Your task to perform on an android device: open app "Indeed Job Search" (install if not already installed) and enter user name: "quixotic@inbox.com" and password: "microphones" Image 0: 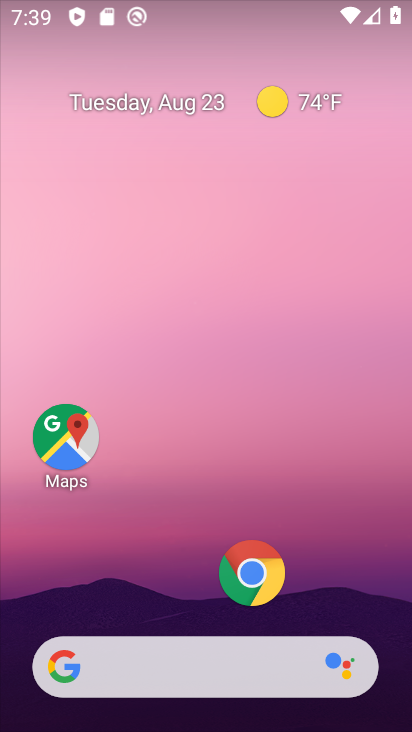
Step 0: drag from (192, 482) to (194, 28)
Your task to perform on an android device: open app "Indeed Job Search" (install if not already installed) and enter user name: "quixotic@inbox.com" and password: "microphones" Image 1: 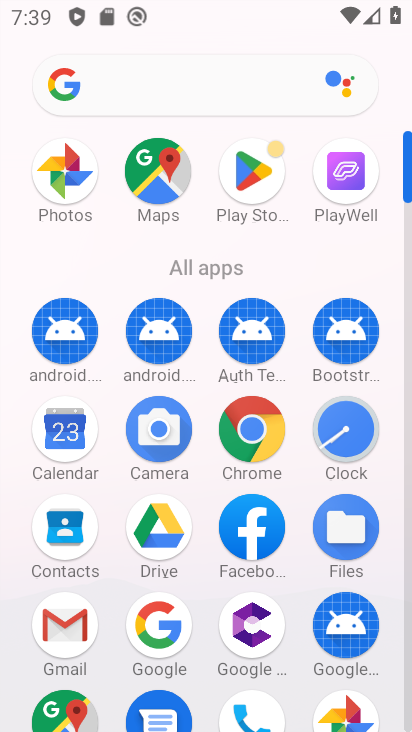
Step 1: click (257, 183)
Your task to perform on an android device: open app "Indeed Job Search" (install if not already installed) and enter user name: "quixotic@inbox.com" and password: "microphones" Image 2: 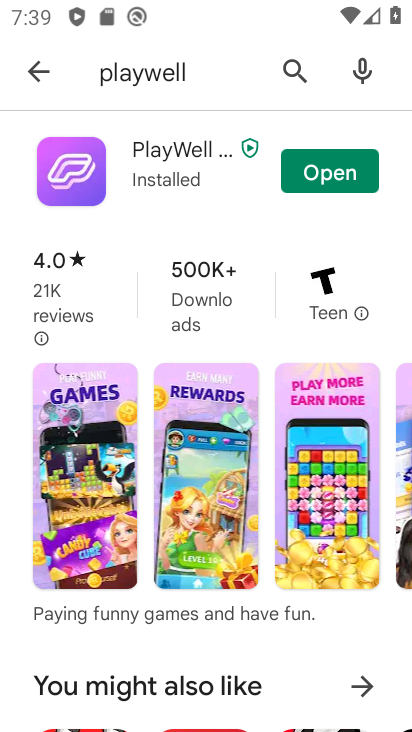
Step 2: click (41, 72)
Your task to perform on an android device: open app "Indeed Job Search" (install if not already installed) and enter user name: "quixotic@inbox.com" and password: "microphones" Image 3: 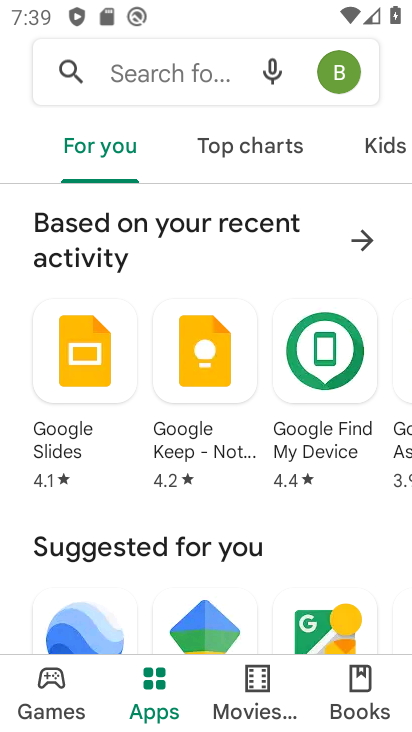
Step 3: click (139, 72)
Your task to perform on an android device: open app "Indeed Job Search" (install if not already installed) and enter user name: "quixotic@inbox.com" and password: "microphones" Image 4: 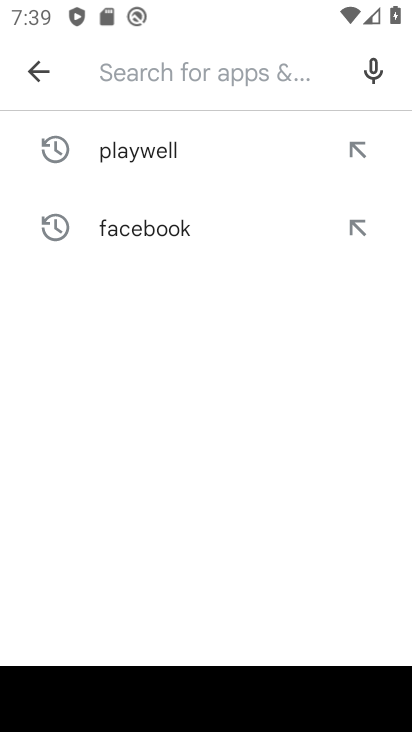
Step 4: type "Indeed Job Search"
Your task to perform on an android device: open app "Indeed Job Search" (install if not already installed) and enter user name: "quixotic@inbox.com" and password: "microphones" Image 5: 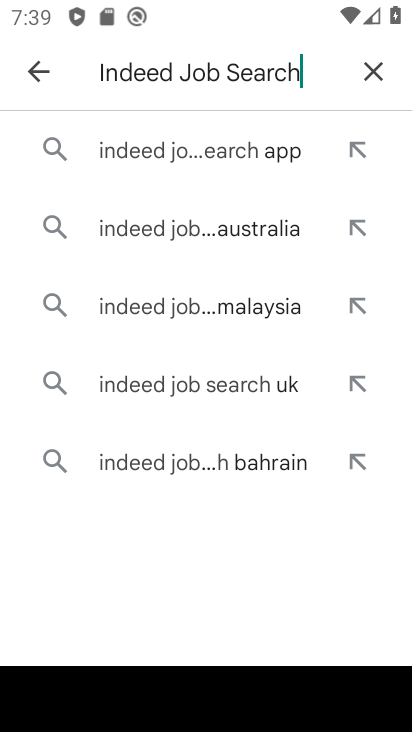
Step 5: click (191, 153)
Your task to perform on an android device: open app "Indeed Job Search" (install if not already installed) and enter user name: "quixotic@inbox.com" and password: "microphones" Image 6: 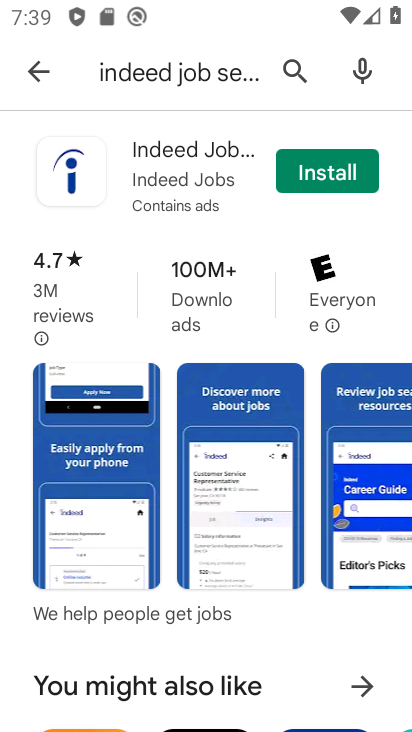
Step 6: click (303, 166)
Your task to perform on an android device: open app "Indeed Job Search" (install if not already installed) and enter user name: "quixotic@inbox.com" and password: "microphones" Image 7: 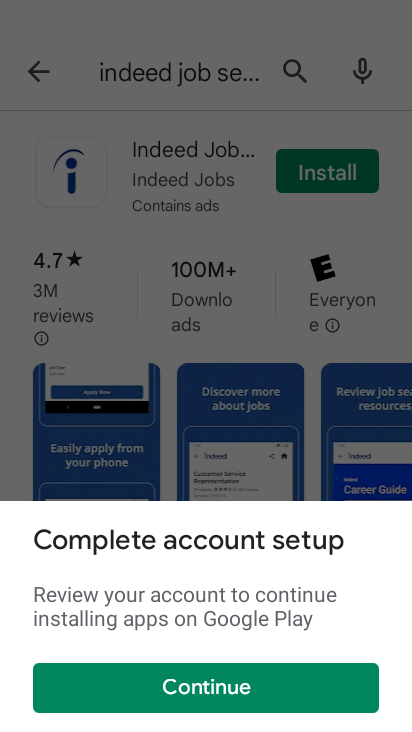
Step 7: click (197, 686)
Your task to perform on an android device: open app "Indeed Job Search" (install if not already installed) and enter user name: "quixotic@inbox.com" and password: "microphones" Image 8: 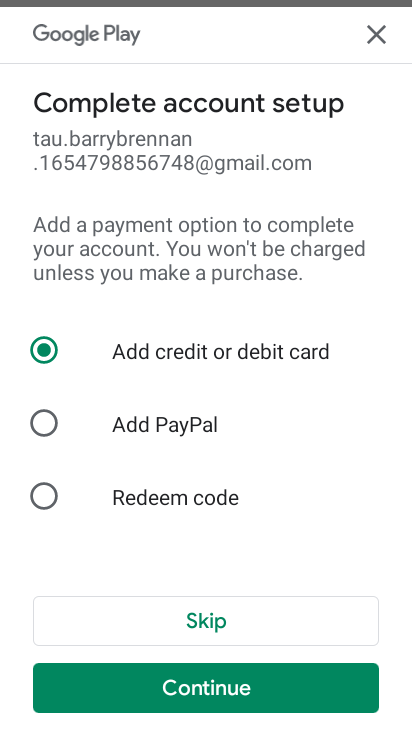
Step 8: click (201, 622)
Your task to perform on an android device: open app "Indeed Job Search" (install if not already installed) and enter user name: "quixotic@inbox.com" and password: "microphones" Image 9: 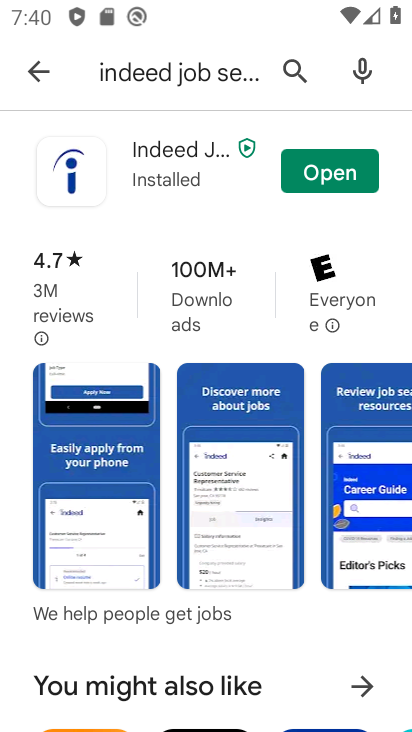
Step 9: click (327, 169)
Your task to perform on an android device: open app "Indeed Job Search" (install if not already installed) and enter user name: "quixotic@inbox.com" and password: "microphones" Image 10: 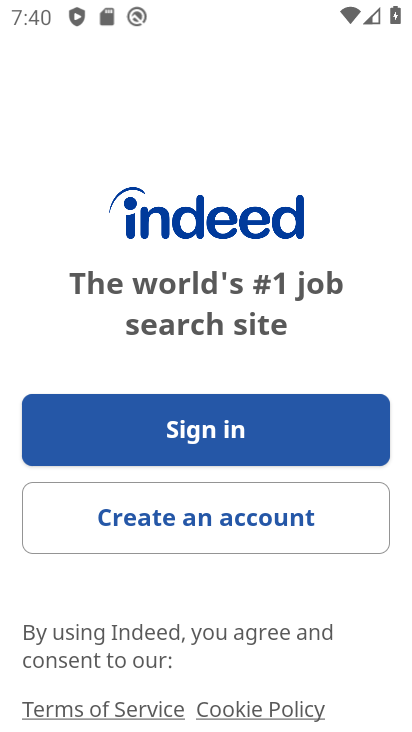
Step 10: click (230, 437)
Your task to perform on an android device: open app "Indeed Job Search" (install if not already installed) and enter user name: "quixotic@inbox.com" and password: "microphones" Image 11: 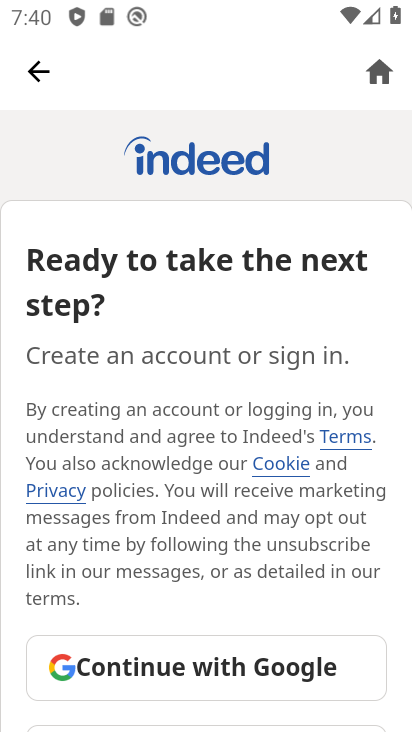
Step 11: drag from (273, 545) to (296, 211)
Your task to perform on an android device: open app "Indeed Job Search" (install if not already installed) and enter user name: "quixotic@inbox.com" and password: "microphones" Image 12: 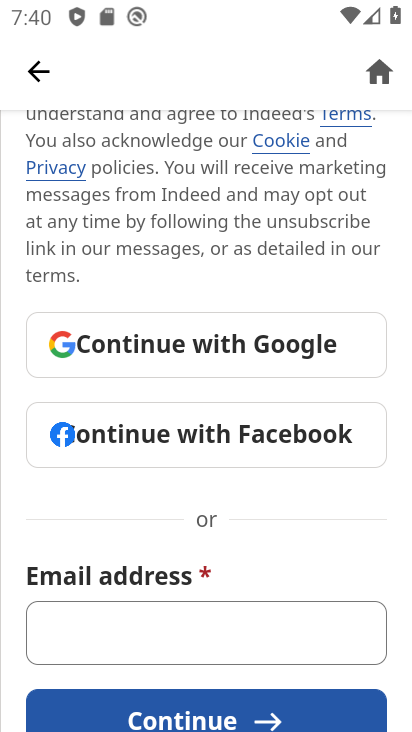
Step 12: click (162, 639)
Your task to perform on an android device: open app "Indeed Job Search" (install if not already installed) and enter user name: "quixotic@inbox.com" and password: "microphones" Image 13: 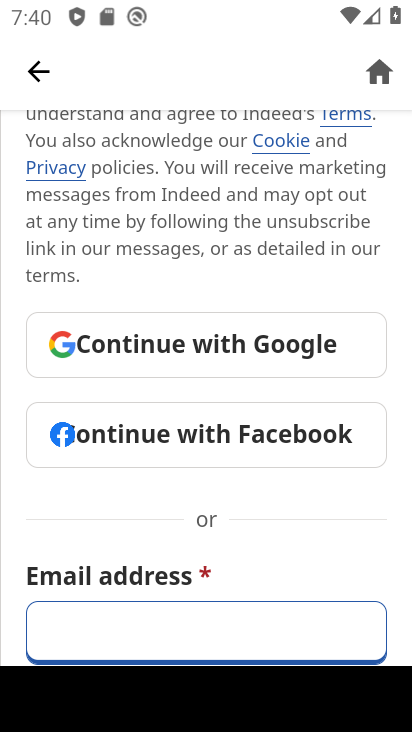
Step 13: type "quixotic@inbox.com"
Your task to perform on an android device: open app "Indeed Job Search" (install if not already installed) and enter user name: "quixotic@inbox.com" and password: "microphones" Image 14: 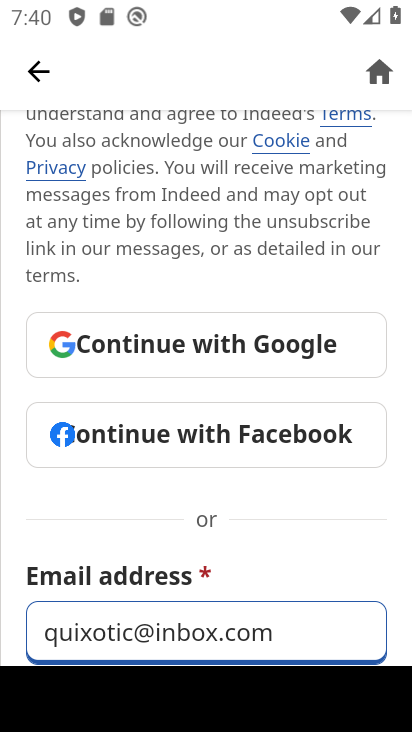
Step 14: drag from (298, 396) to (288, 299)
Your task to perform on an android device: open app "Indeed Job Search" (install if not already installed) and enter user name: "quixotic@inbox.com" and password: "microphones" Image 15: 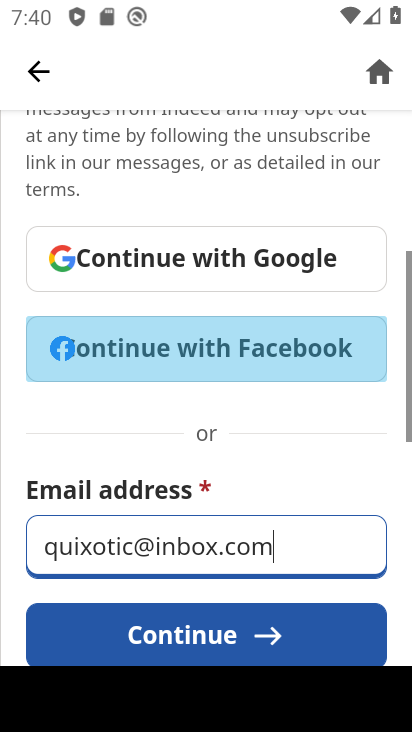
Step 15: click (211, 621)
Your task to perform on an android device: open app "Indeed Job Search" (install if not already installed) and enter user name: "quixotic@inbox.com" and password: "microphones" Image 16: 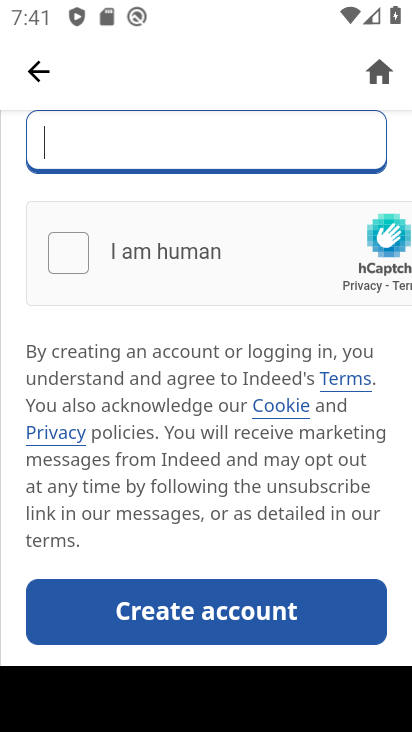
Step 16: type "microphones"
Your task to perform on an android device: open app "Indeed Job Search" (install if not already installed) and enter user name: "quixotic@inbox.com" and password: "microphones" Image 17: 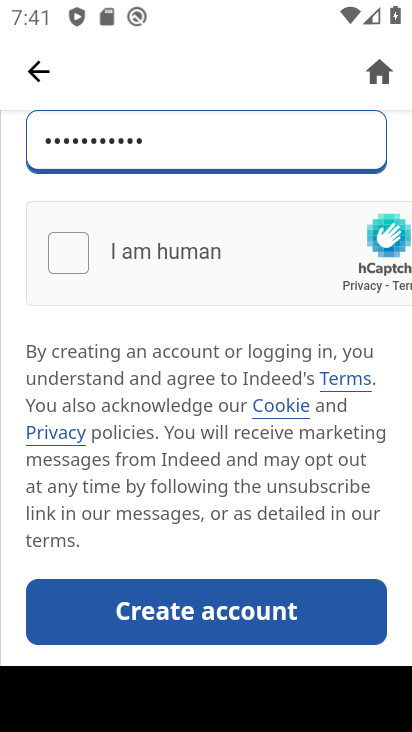
Step 17: task complete